Your task to perform on an android device: Open Google Image 0: 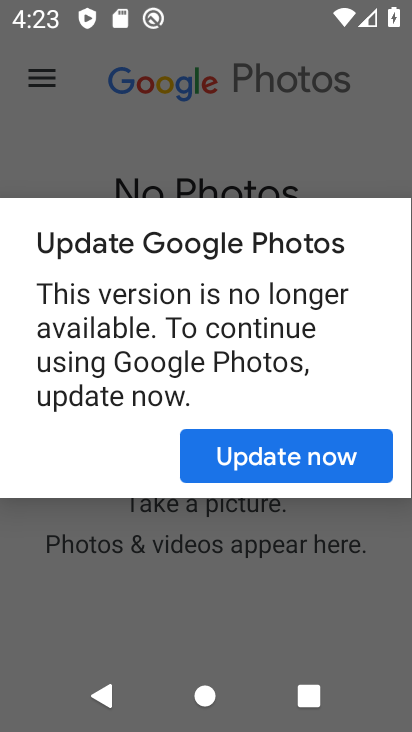
Step 0: press home button
Your task to perform on an android device: Open Google Image 1: 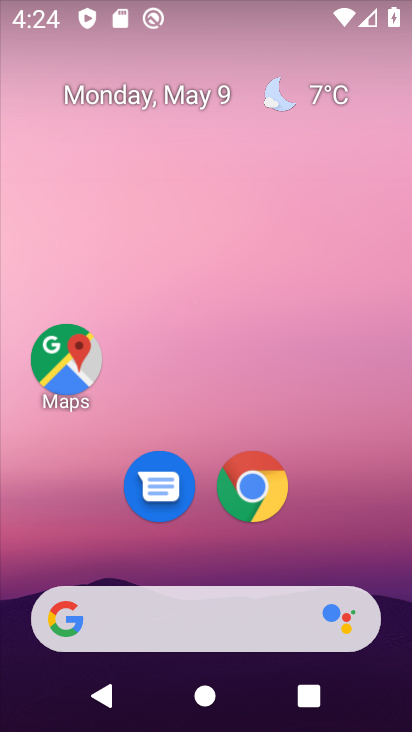
Step 1: click (155, 602)
Your task to perform on an android device: Open Google Image 2: 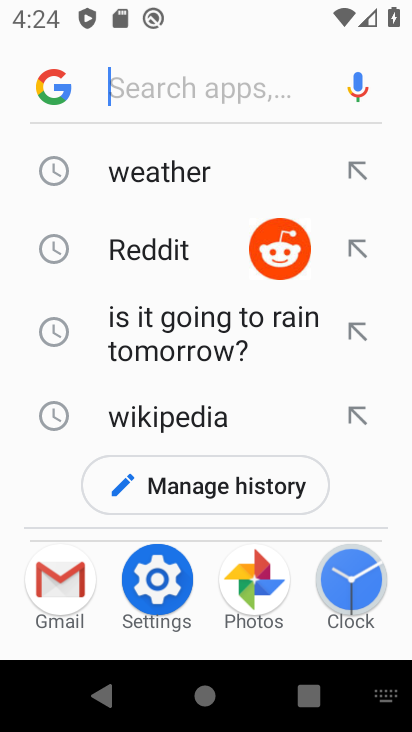
Step 2: type "Google"
Your task to perform on an android device: Open Google Image 3: 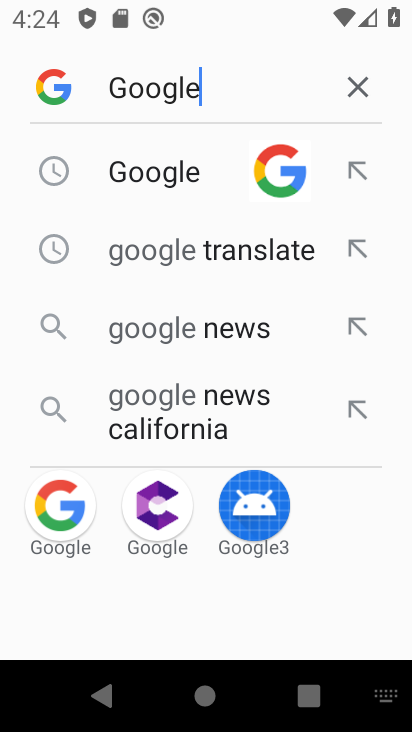
Step 3: click (224, 168)
Your task to perform on an android device: Open Google Image 4: 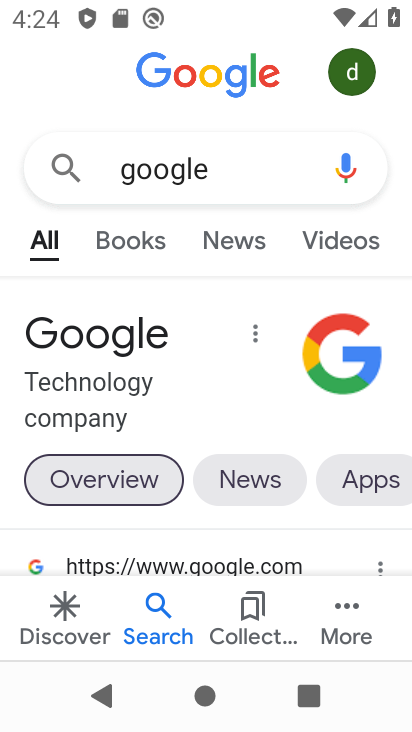
Step 4: task complete